Your task to perform on an android device: Go to Reddit.com Image 0: 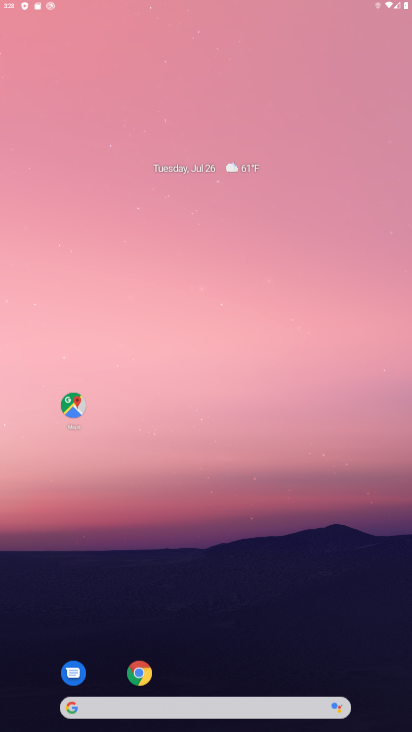
Step 0: press home button
Your task to perform on an android device: Go to Reddit.com Image 1: 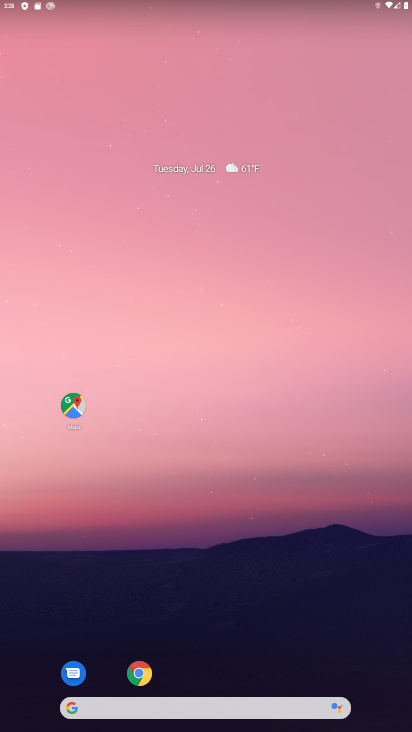
Step 1: click (137, 671)
Your task to perform on an android device: Go to Reddit.com Image 2: 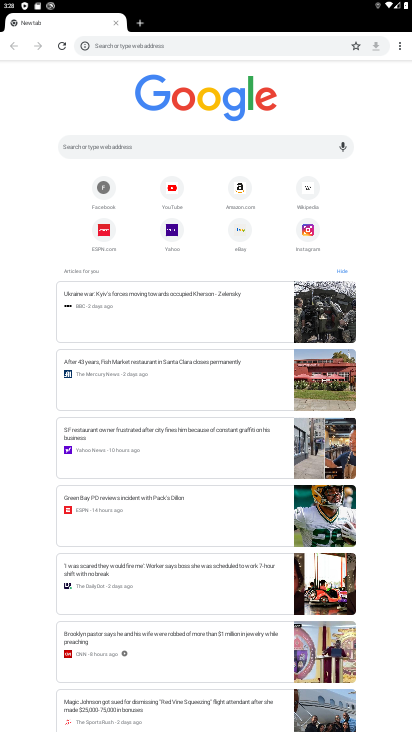
Step 2: click (116, 140)
Your task to perform on an android device: Go to Reddit.com Image 3: 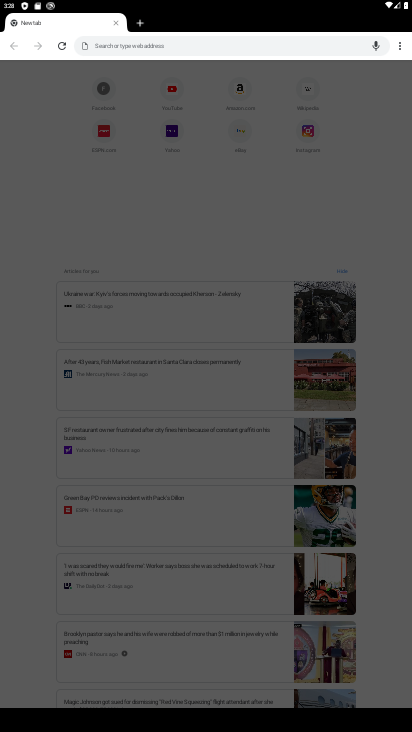
Step 3: type "reddit.com"
Your task to perform on an android device: Go to Reddit.com Image 4: 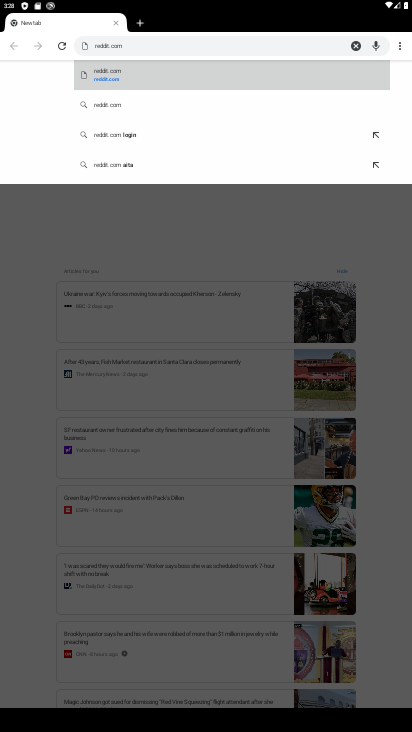
Step 4: click (132, 78)
Your task to perform on an android device: Go to Reddit.com Image 5: 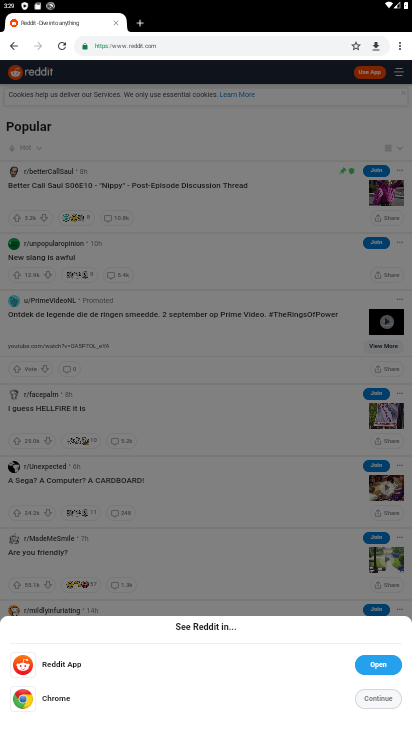
Step 5: click (380, 697)
Your task to perform on an android device: Go to Reddit.com Image 6: 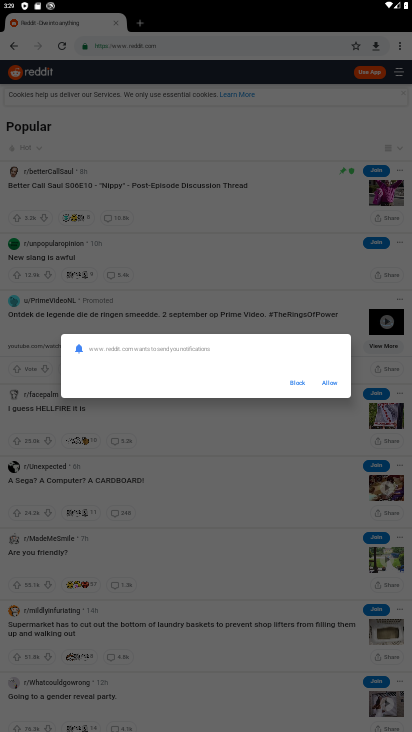
Step 6: click (327, 382)
Your task to perform on an android device: Go to Reddit.com Image 7: 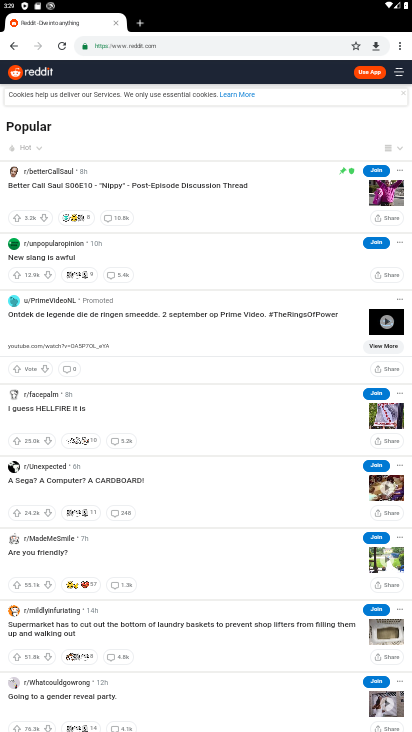
Step 7: task complete